Your task to perform on an android device: Clear all items from cart on bestbuy.com. Image 0: 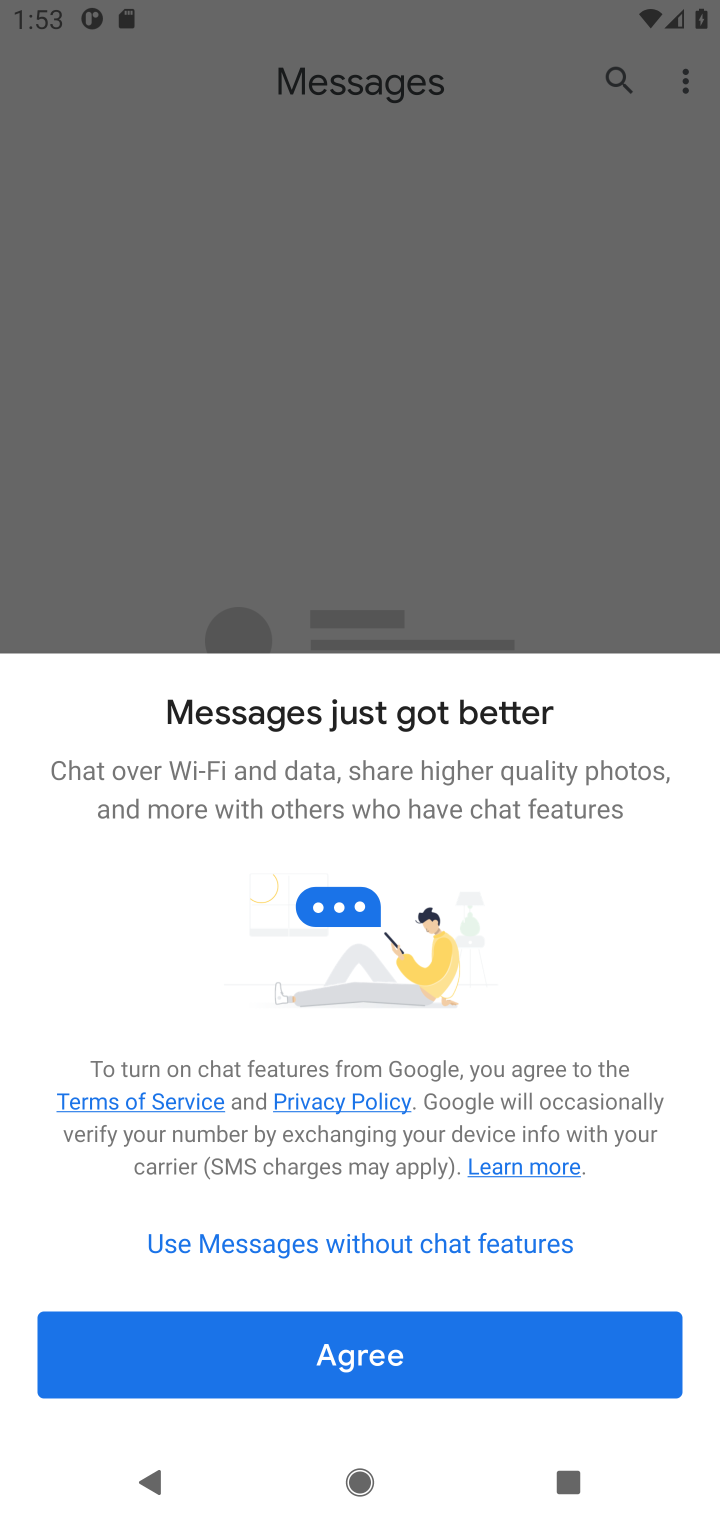
Step 0: press home button
Your task to perform on an android device: Clear all items from cart on bestbuy.com. Image 1: 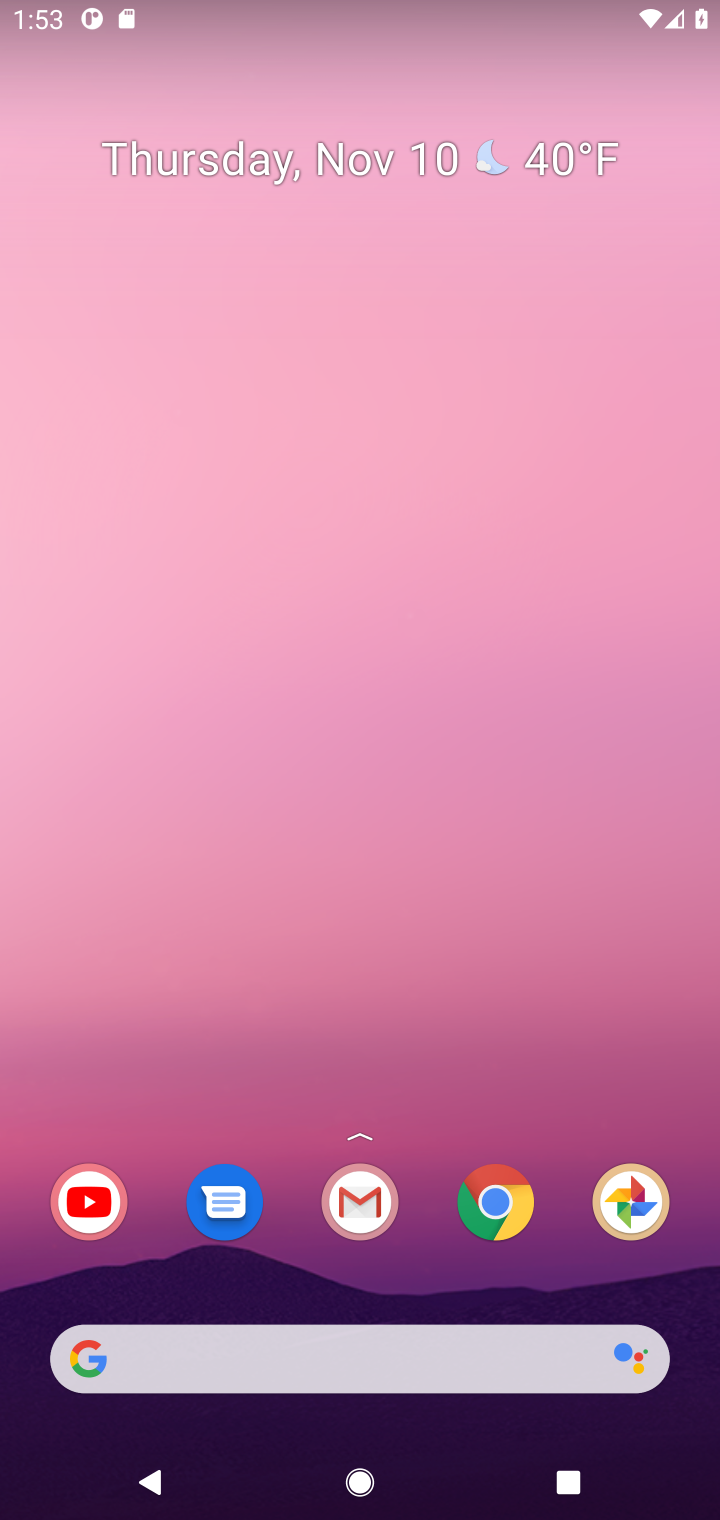
Step 1: click (495, 1191)
Your task to perform on an android device: Clear all items from cart on bestbuy.com. Image 2: 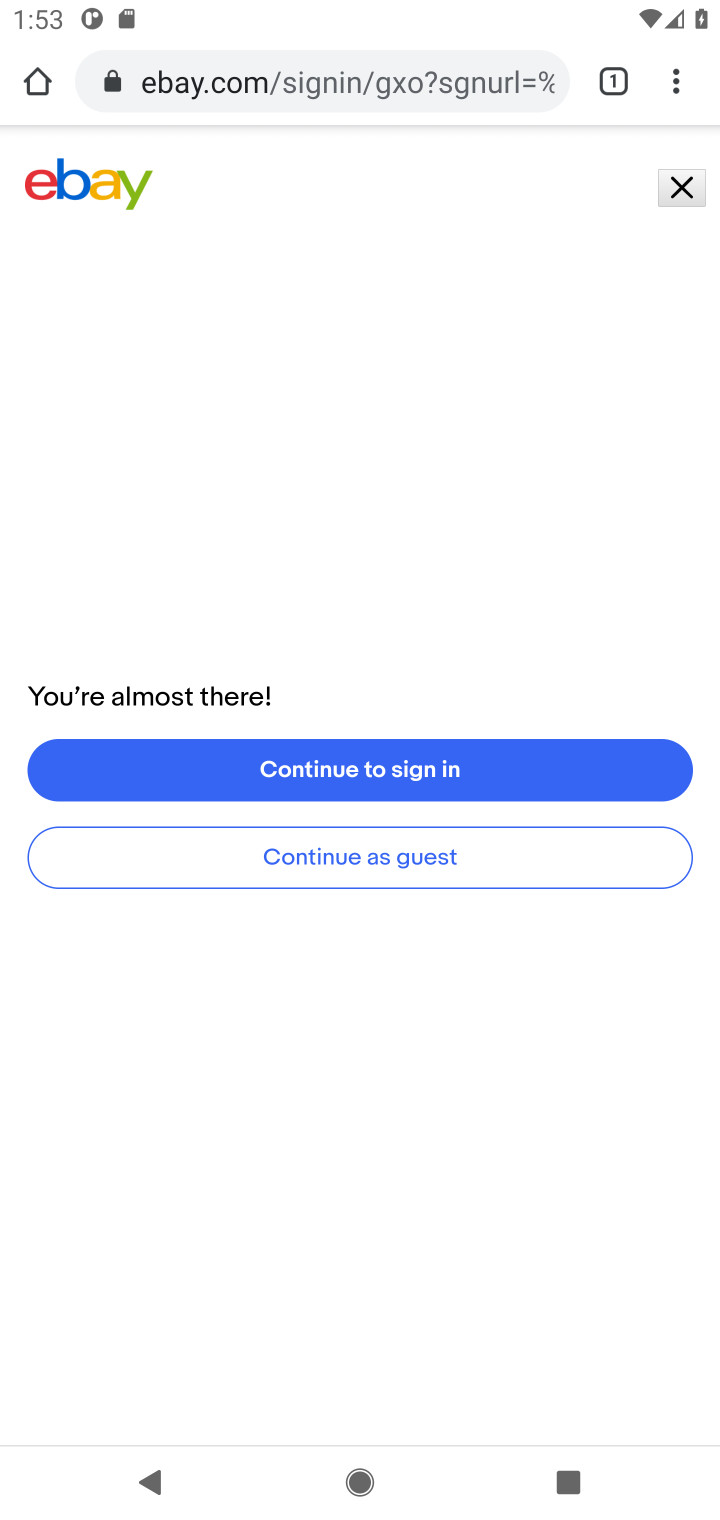
Step 2: click (435, 73)
Your task to perform on an android device: Clear all items from cart on bestbuy.com. Image 3: 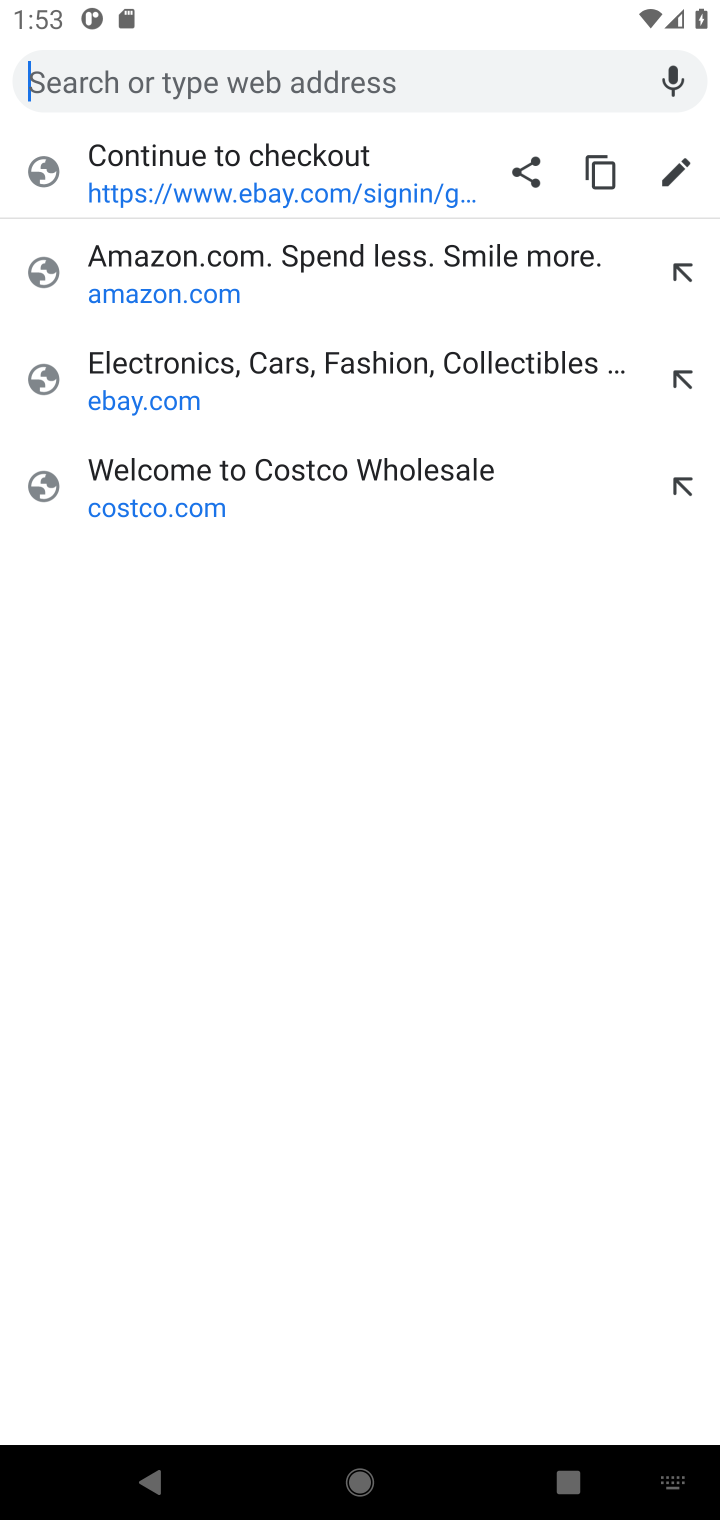
Step 3: type "bestbuy.com"
Your task to perform on an android device: Clear all items from cart on bestbuy.com. Image 4: 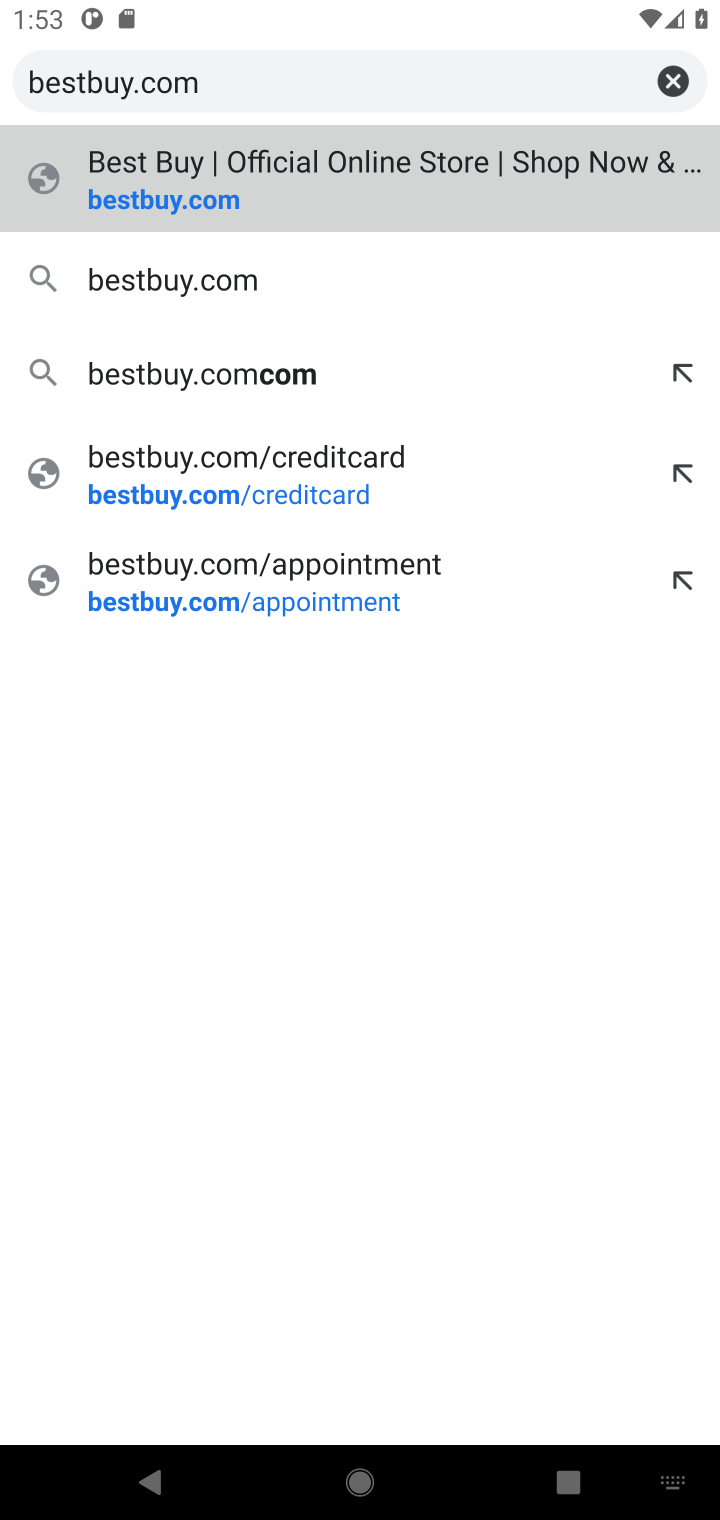
Step 4: press enter
Your task to perform on an android device: Clear all items from cart on bestbuy.com. Image 5: 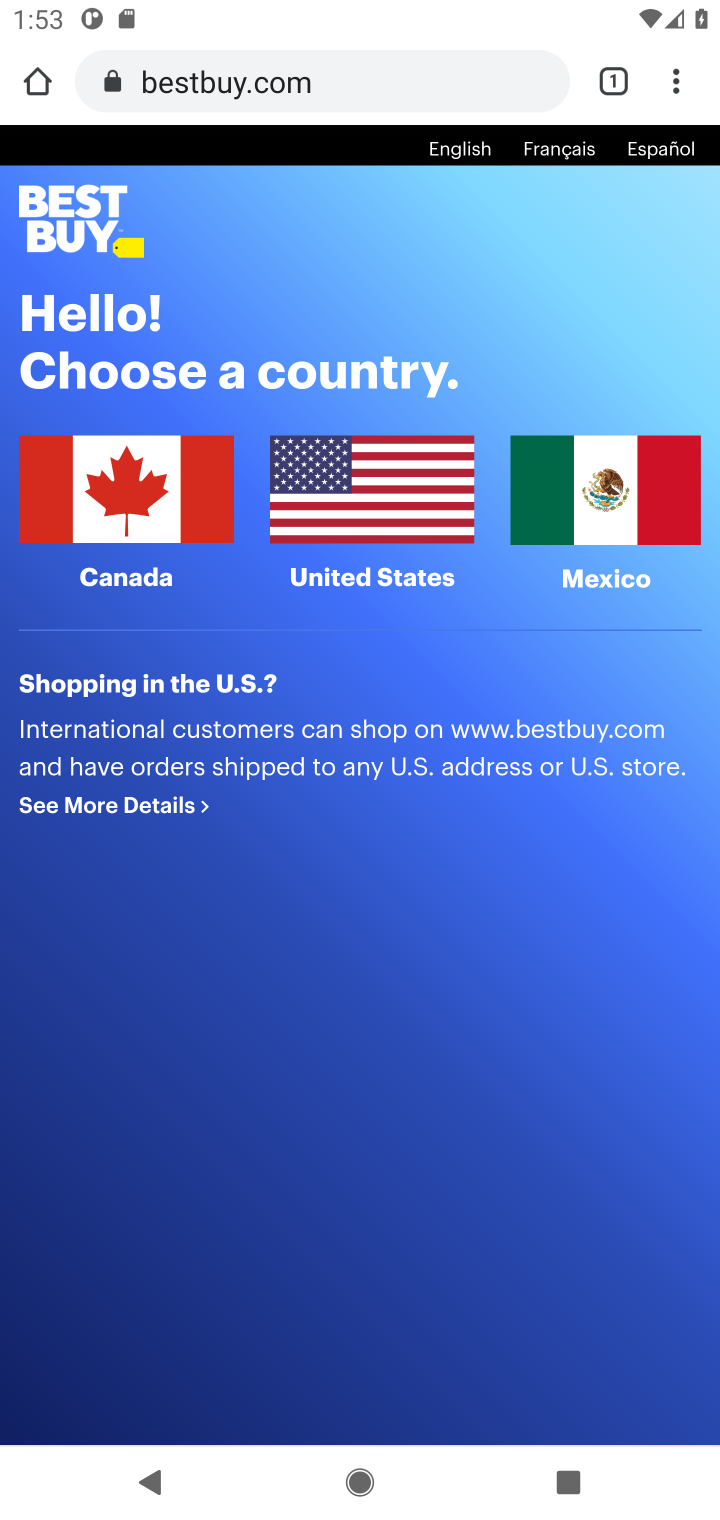
Step 5: click (156, 541)
Your task to perform on an android device: Clear all items from cart on bestbuy.com. Image 6: 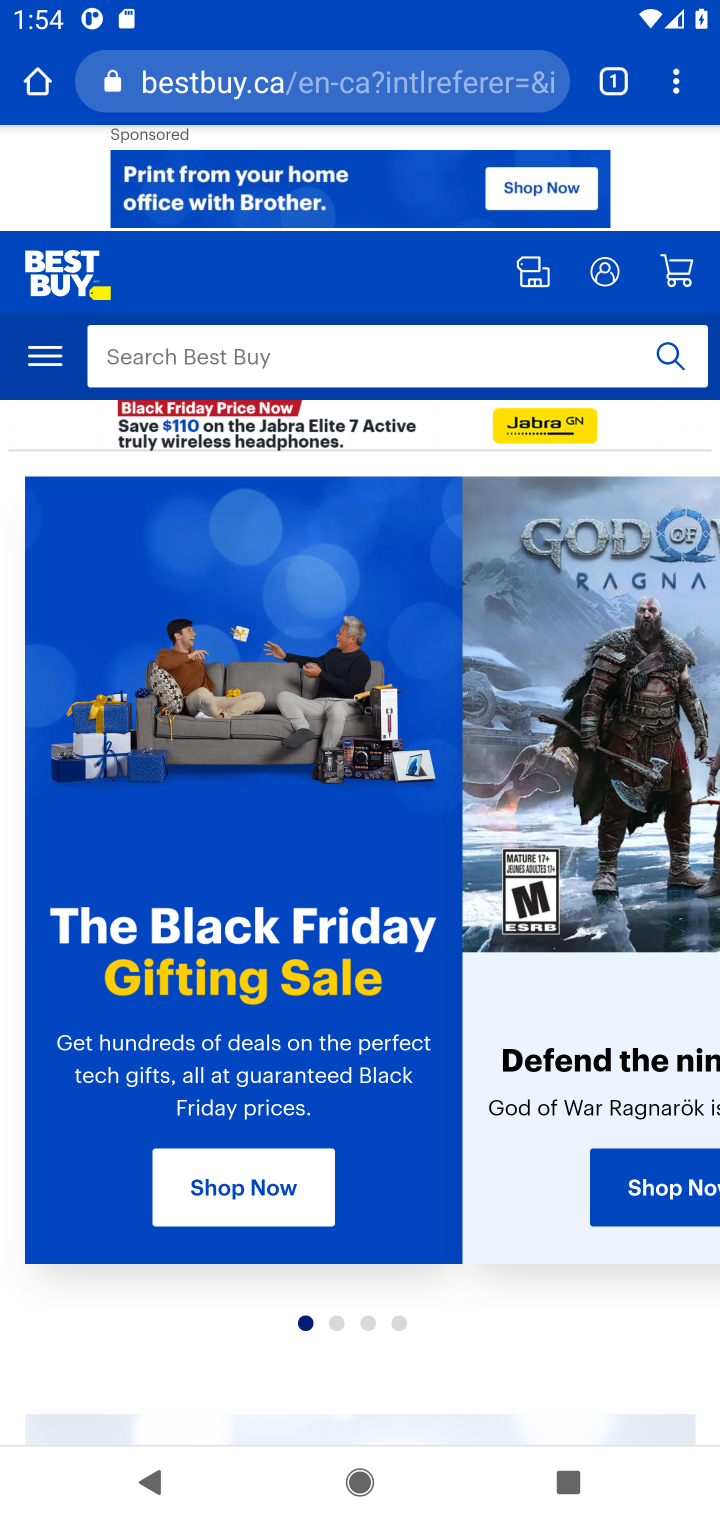
Step 6: click (666, 257)
Your task to perform on an android device: Clear all items from cart on bestbuy.com. Image 7: 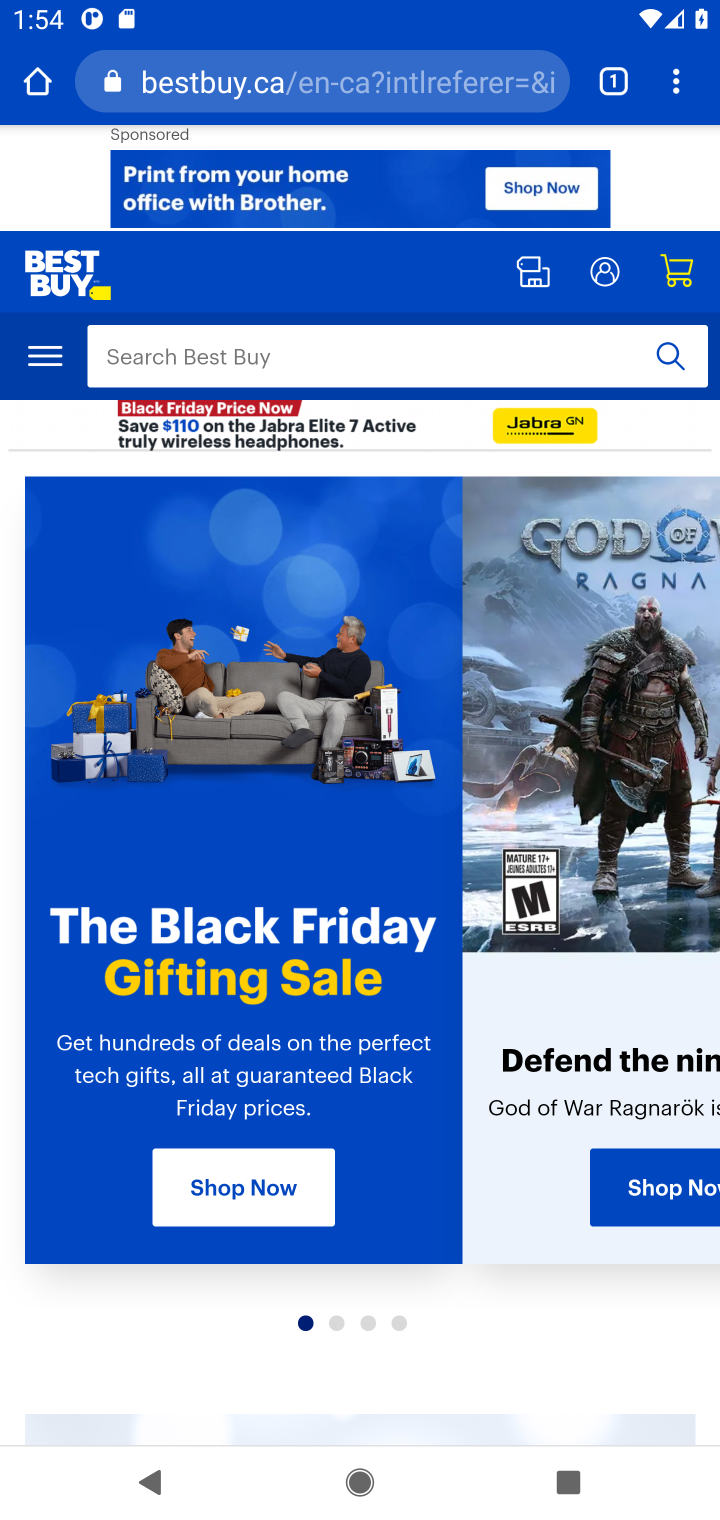
Step 7: click (679, 273)
Your task to perform on an android device: Clear all items from cart on bestbuy.com. Image 8: 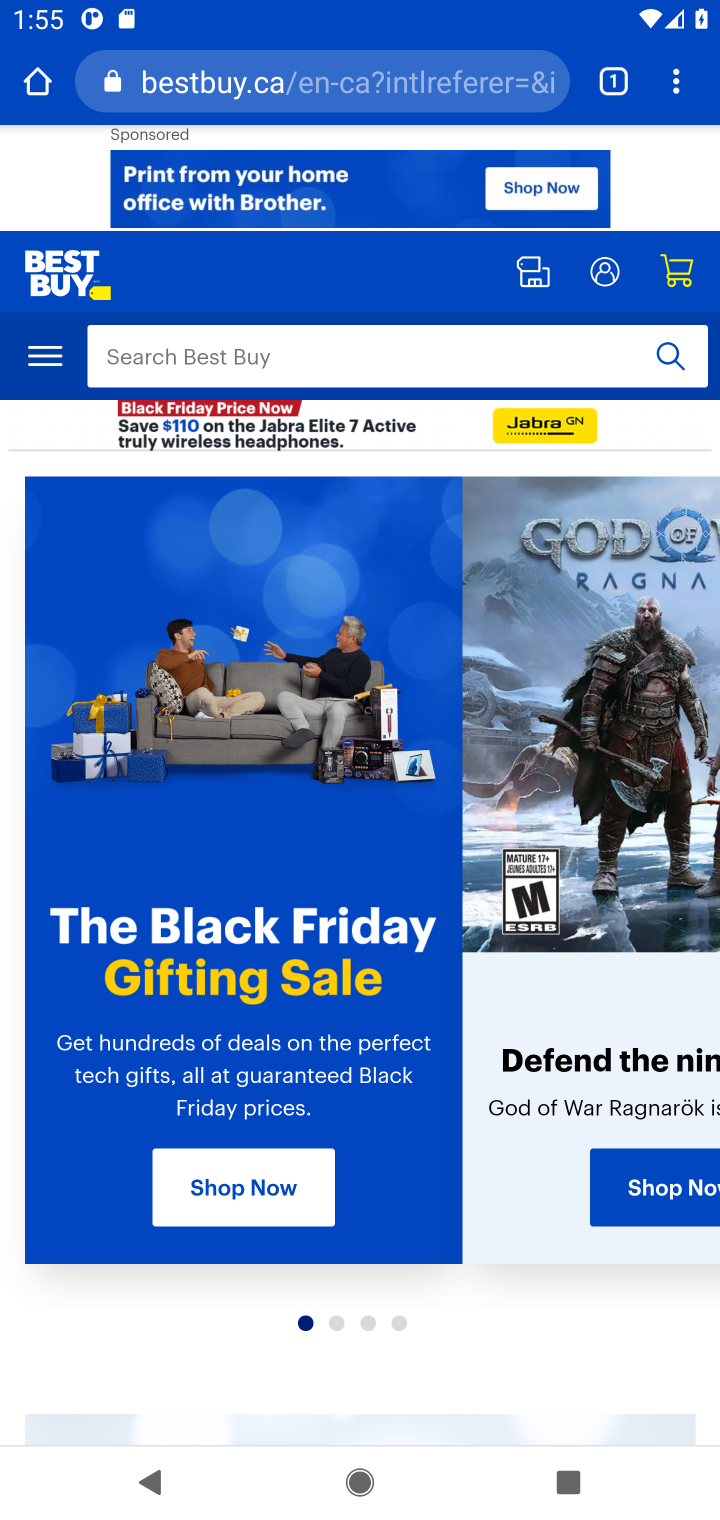
Step 8: click (675, 273)
Your task to perform on an android device: Clear all items from cart on bestbuy.com. Image 9: 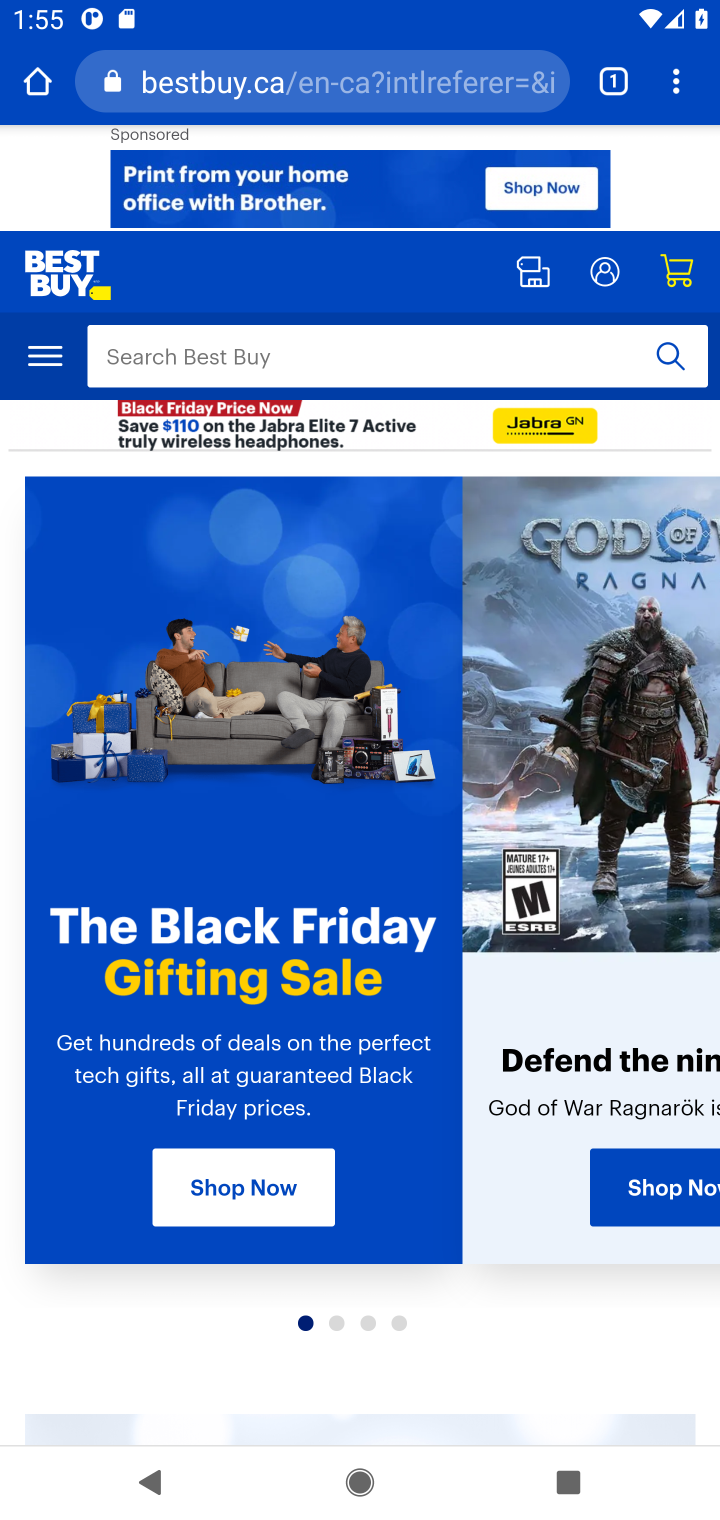
Step 9: click (683, 277)
Your task to perform on an android device: Clear all items from cart on bestbuy.com. Image 10: 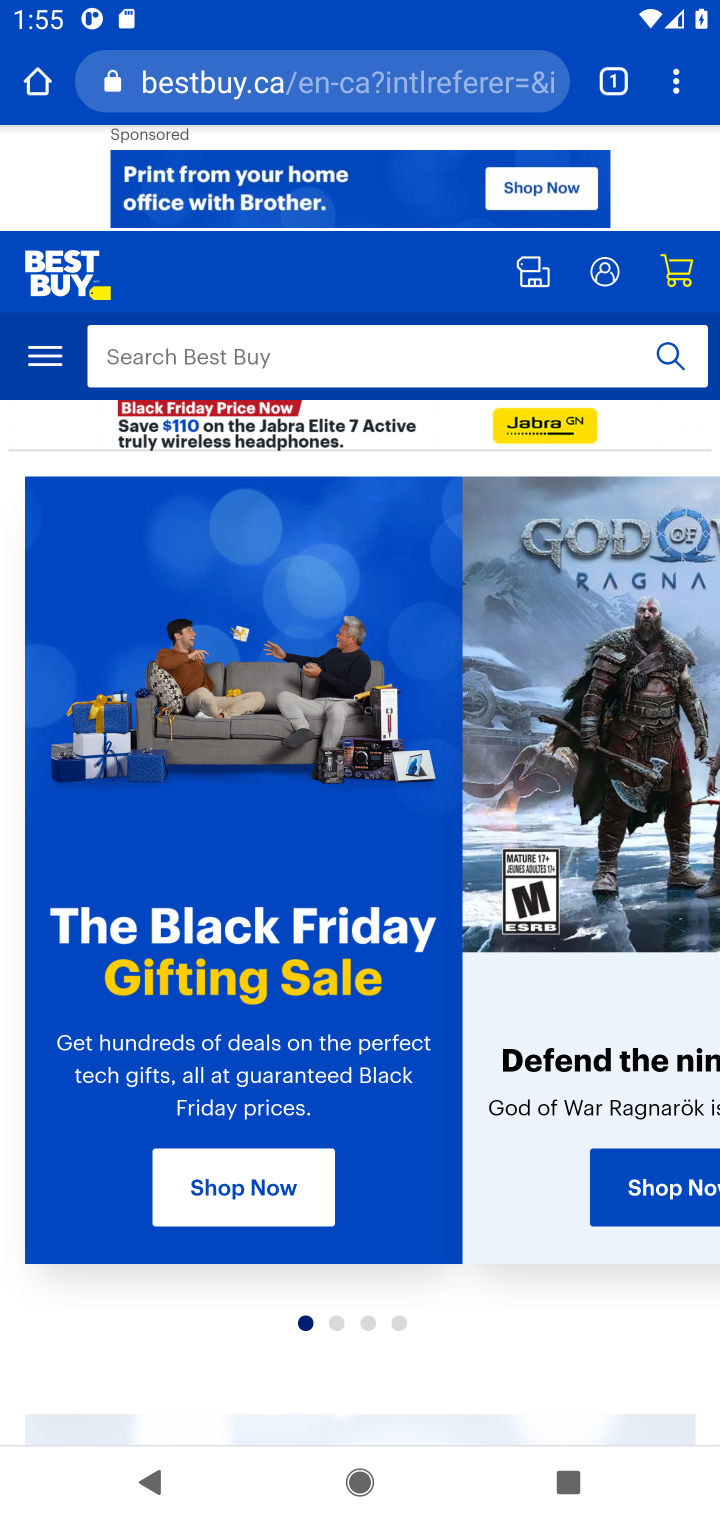
Step 10: click (684, 277)
Your task to perform on an android device: Clear all items from cart on bestbuy.com. Image 11: 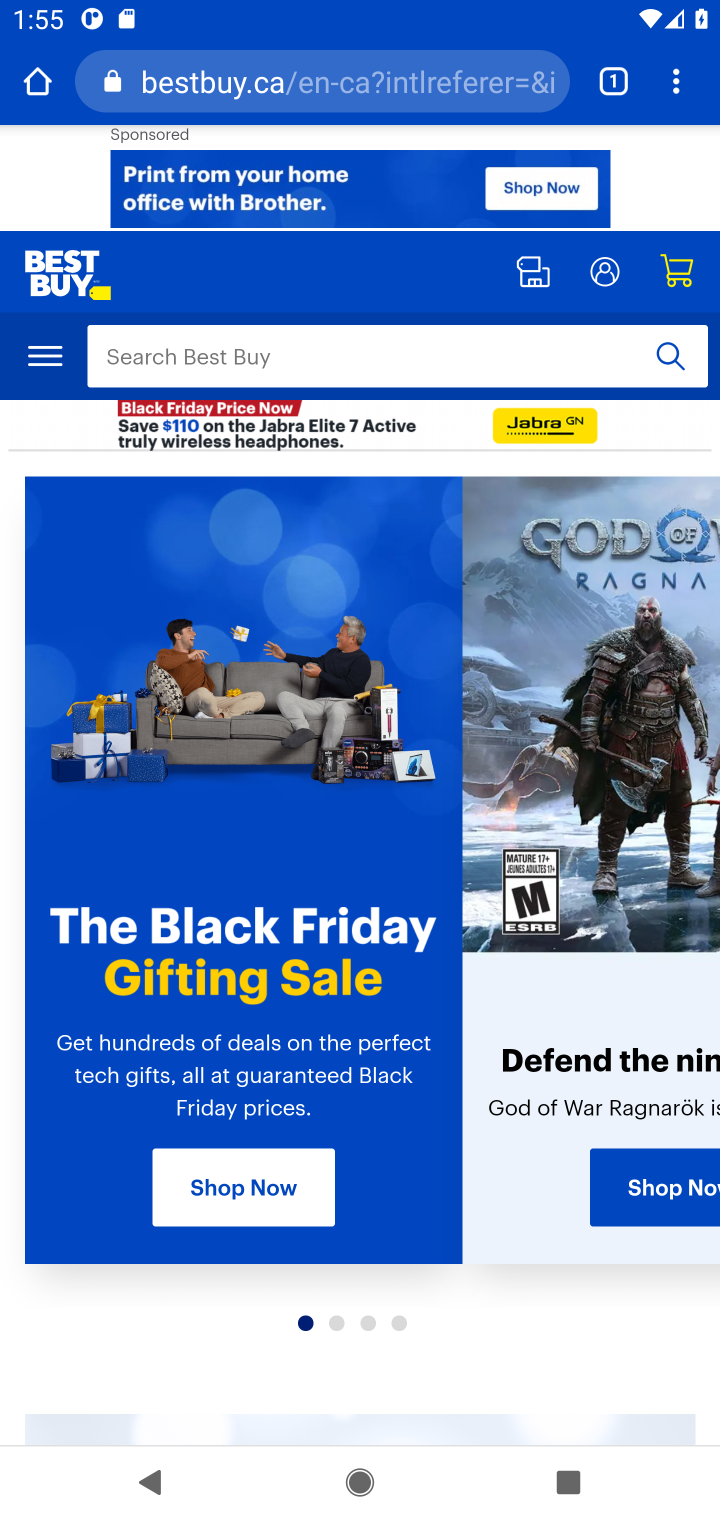
Step 11: click (674, 258)
Your task to perform on an android device: Clear all items from cart on bestbuy.com. Image 12: 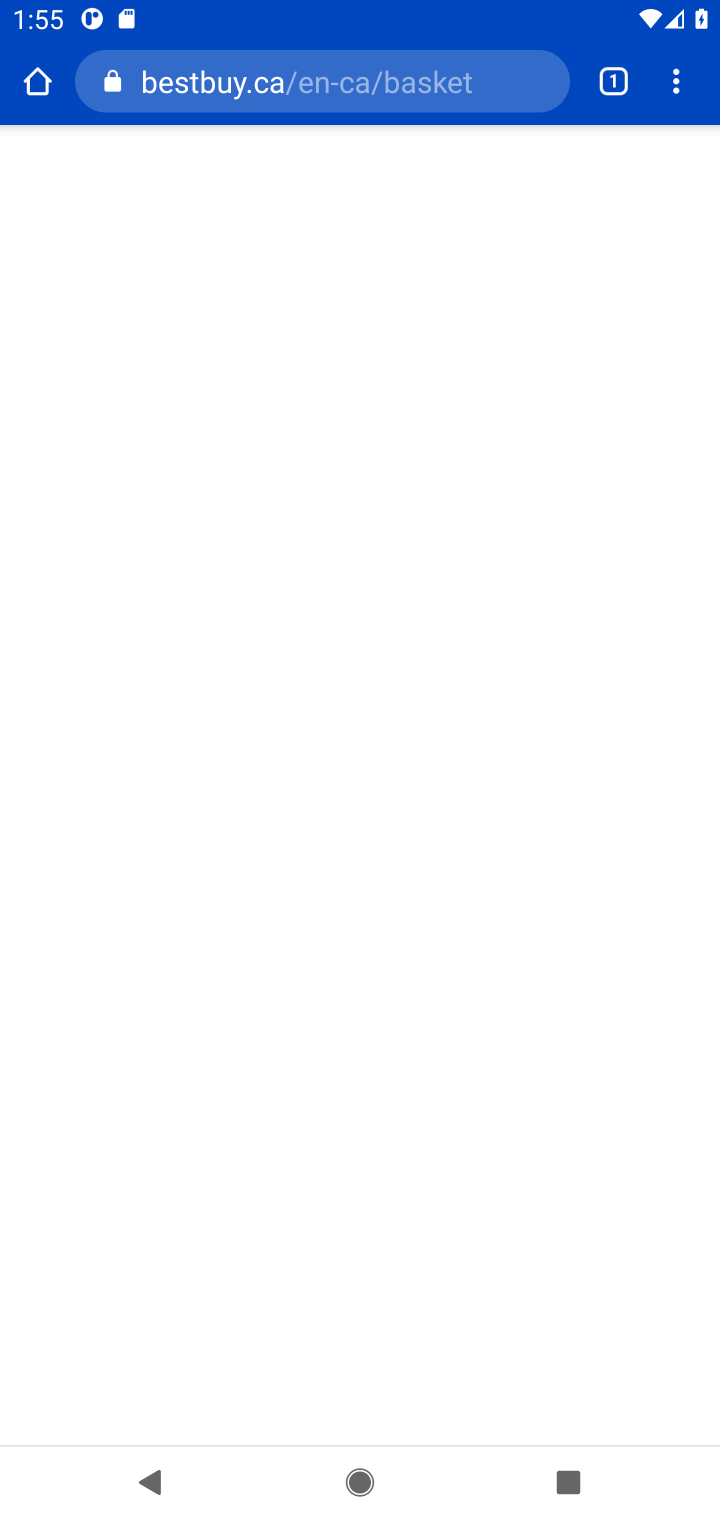
Step 12: task complete